Your task to perform on an android device: Search for pizza restaurants on Maps Image 0: 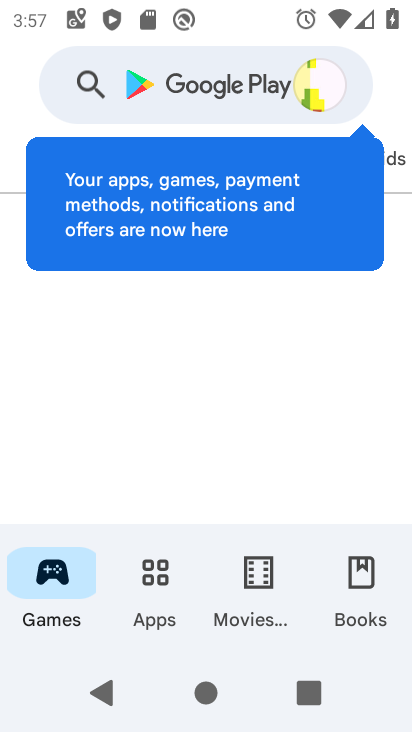
Step 0: press home button
Your task to perform on an android device: Search for pizza restaurants on Maps Image 1: 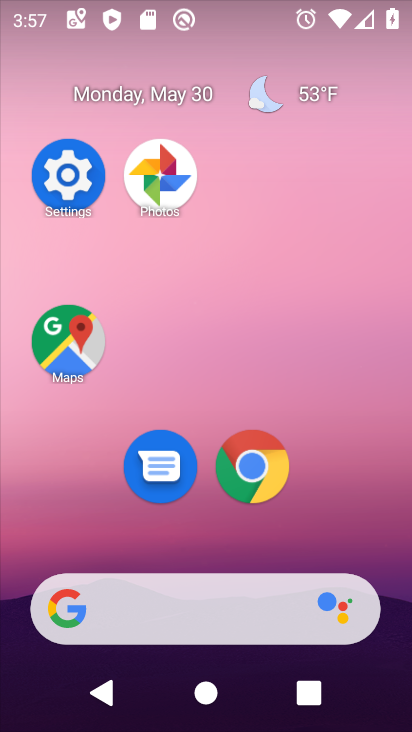
Step 1: click (82, 332)
Your task to perform on an android device: Search for pizza restaurants on Maps Image 2: 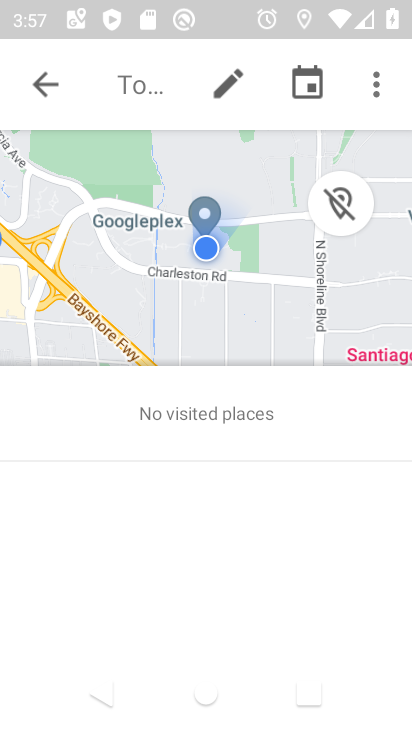
Step 2: click (55, 80)
Your task to perform on an android device: Search for pizza restaurants on Maps Image 3: 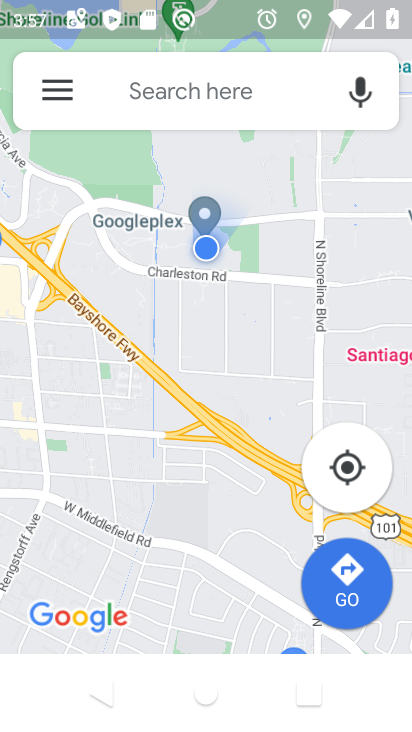
Step 3: click (214, 81)
Your task to perform on an android device: Search for pizza restaurants on Maps Image 4: 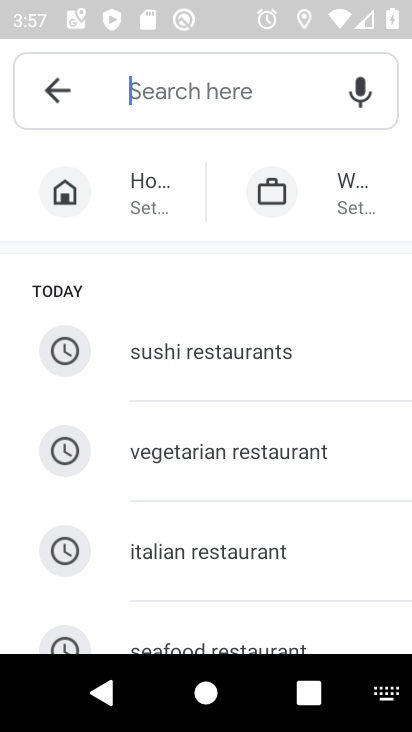
Step 4: drag from (248, 557) to (231, 214)
Your task to perform on an android device: Search for pizza restaurants on Maps Image 5: 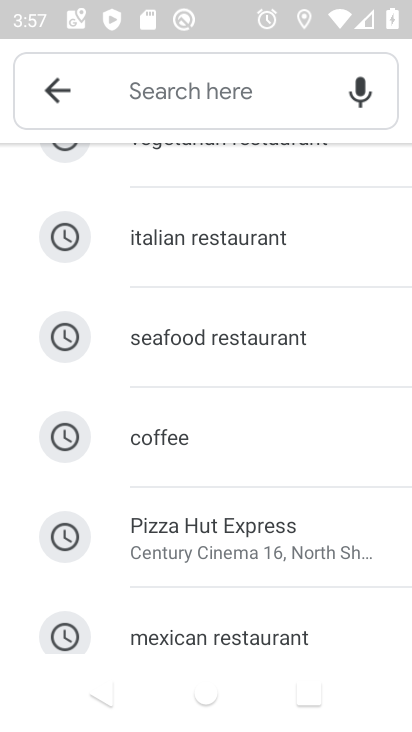
Step 5: drag from (221, 576) to (229, 189)
Your task to perform on an android device: Search for pizza restaurants on Maps Image 6: 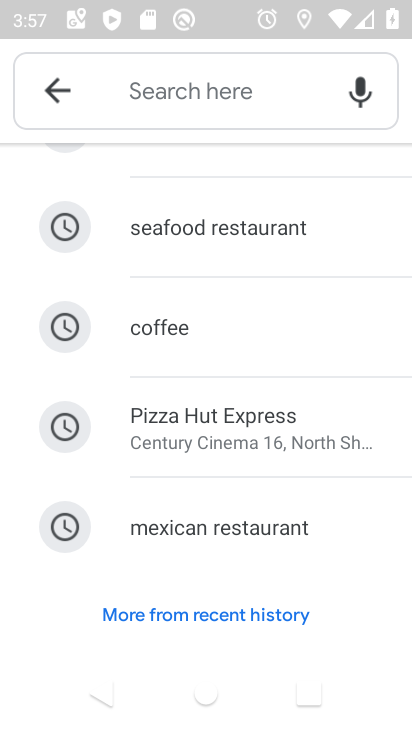
Step 6: click (249, 97)
Your task to perform on an android device: Search for pizza restaurants on Maps Image 7: 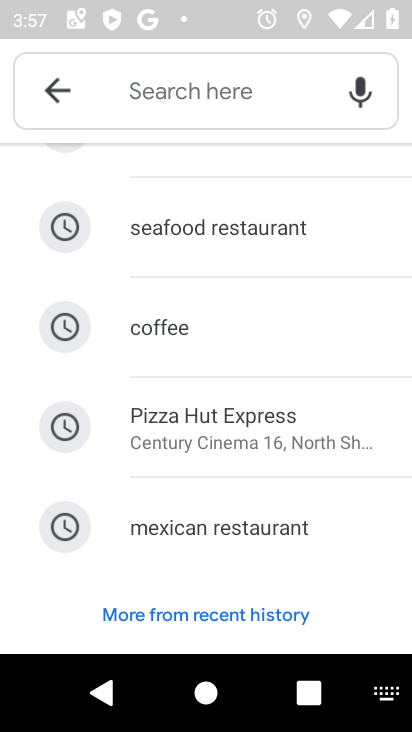
Step 7: type "pizza restaurant"
Your task to perform on an android device: Search for pizza restaurants on Maps Image 8: 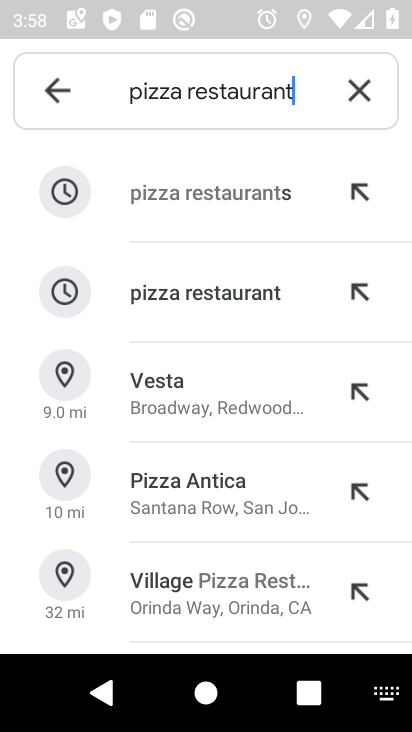
Step 8: task complete